Your task to perform on an android device: turn pop-ups off in chrome Image 0: 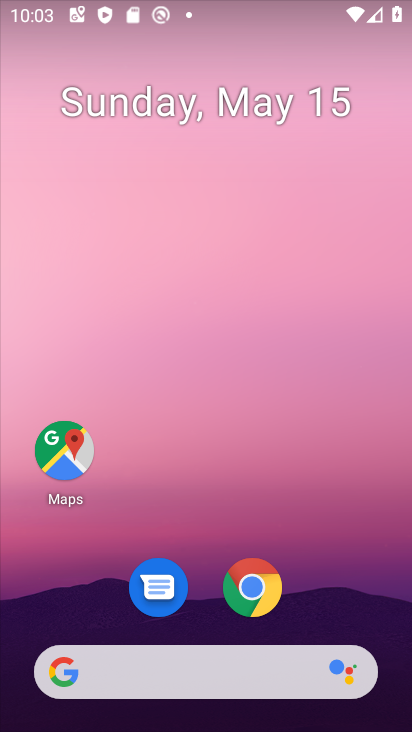
Step 0: drag from (367, 501) to (284, 115)
Your task to perform on an android device: turn pop-ups off in chrome Image 1: 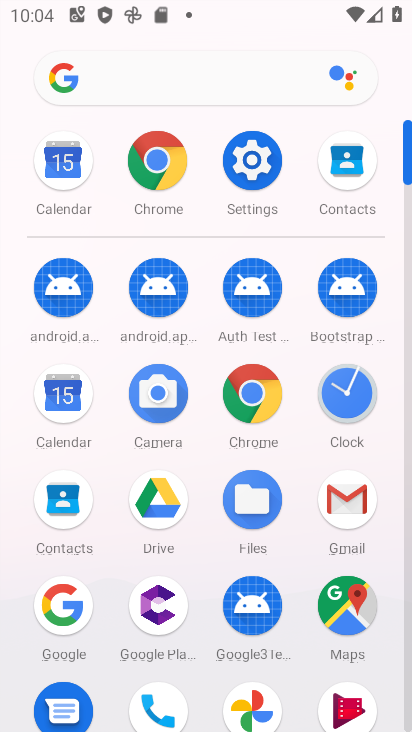
Step 1: click (152, 181)
Your task to perform on an android device: turn pop-ups off in chrome Image 2: 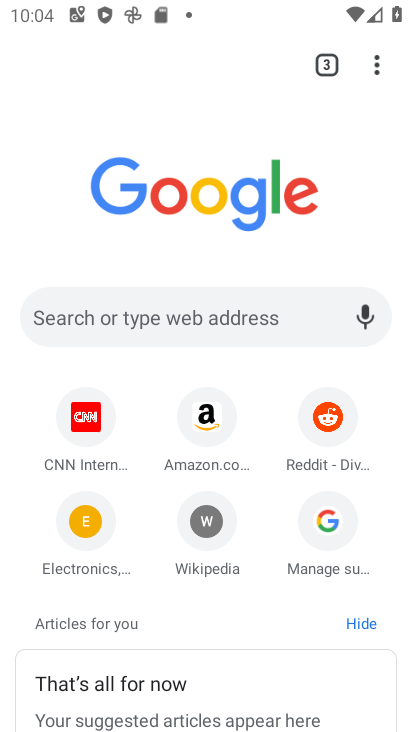
Step 2: click (372, 61)
Your task to perform on an android device: turn pop-ups off in chrome Image 3: 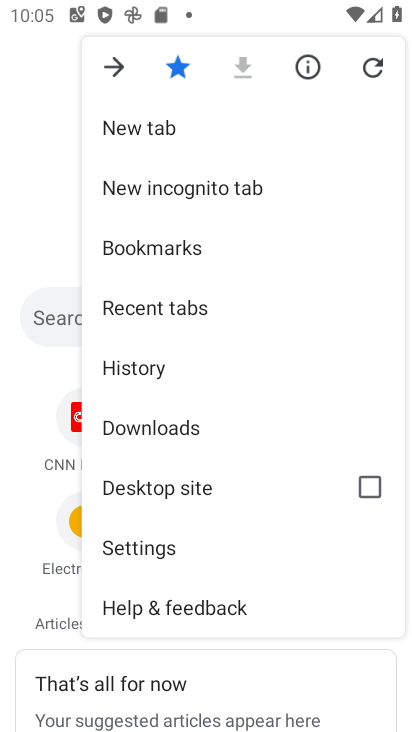
Step 3: click (201, 554)
Your task to perform on an android device: turn pop-ups off in chrome Image 4: 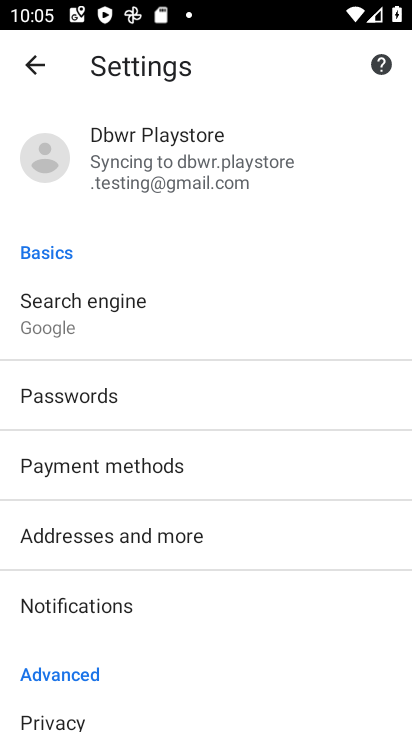
Step 4: drag from (228, 601) to (235, 178)
Your task to perform on an android device: turn pop-ups off in chrome Image 5: 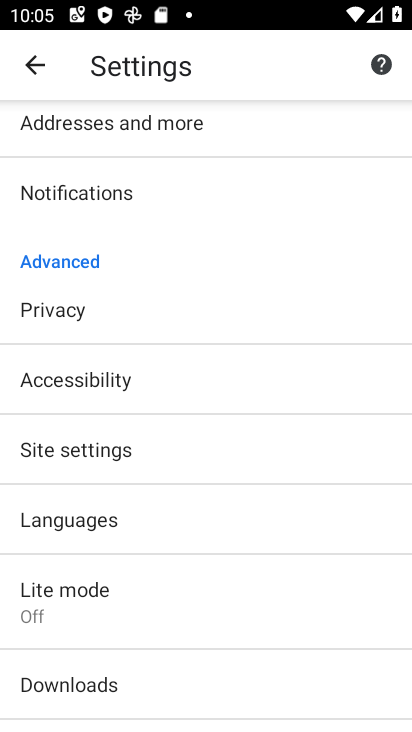
Step 5: click (201, 451)
Your task to perform on an android device: turn pop-ups off in chrome Image 6: 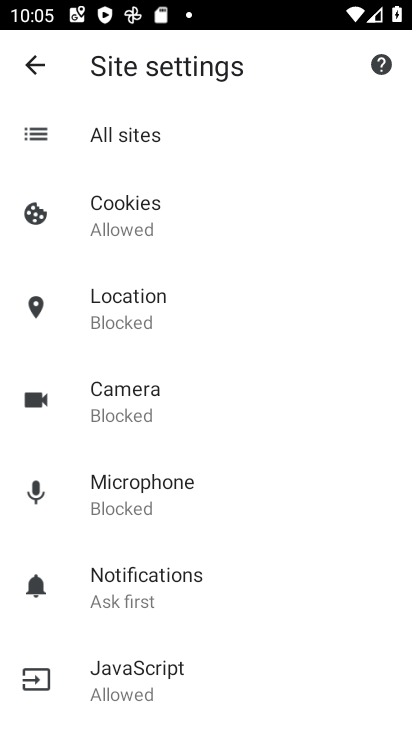
Step 6: drag from (202, 588) to (236, 278)
Your task to perform on an android device: turn pop-ups off in chrome Image 7: 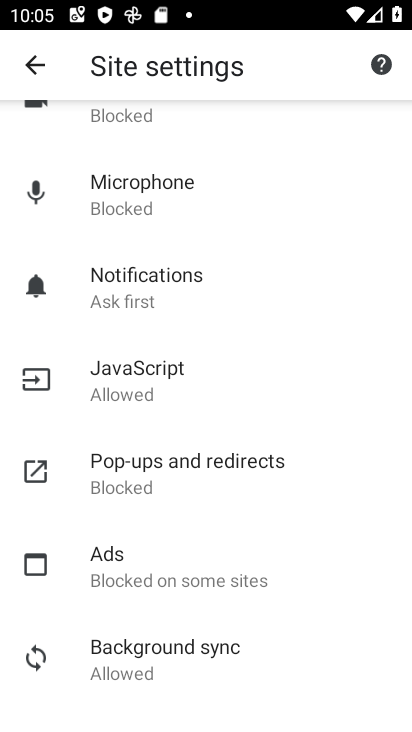
Step 7: click (183, 476)
Your task to perform on an android device: turn pop-ups off in chrome Image 8: 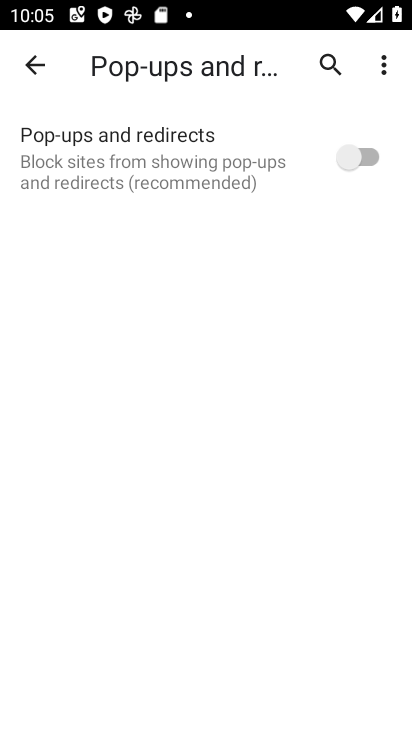
Step 8: task complete